Your task to perform on an android device: Go to ESPN.com Image 0: 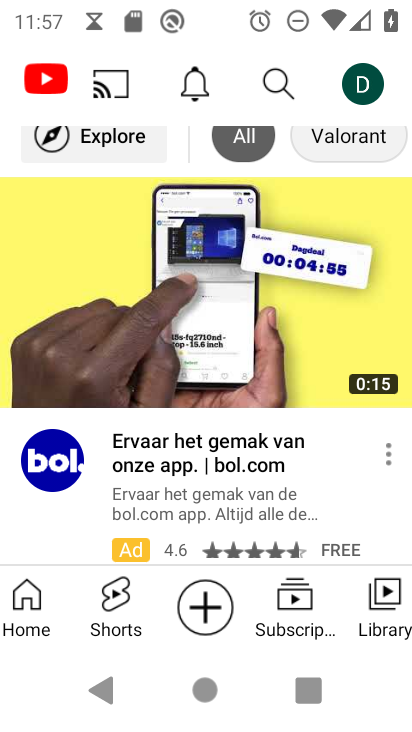
Step 0: press home button
Your task to perform on an android device: Go to ESPN.com Image 1: 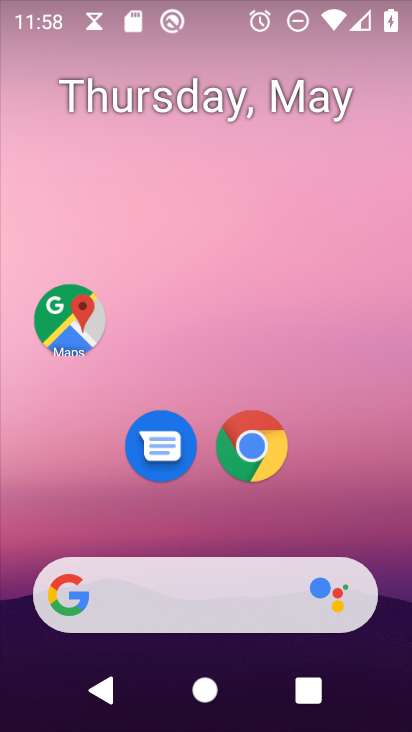
Step 1: drag from (275, 627) to (238, 302)
Your task to perform on an android device: Go to ESPN.com Image 2: 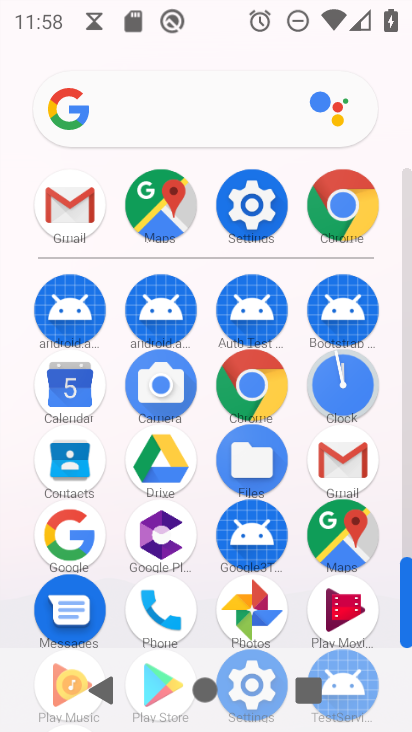
Step 2: click (334, 221)
Your task to perform on an android device: Go to ESPN.com Image 3: 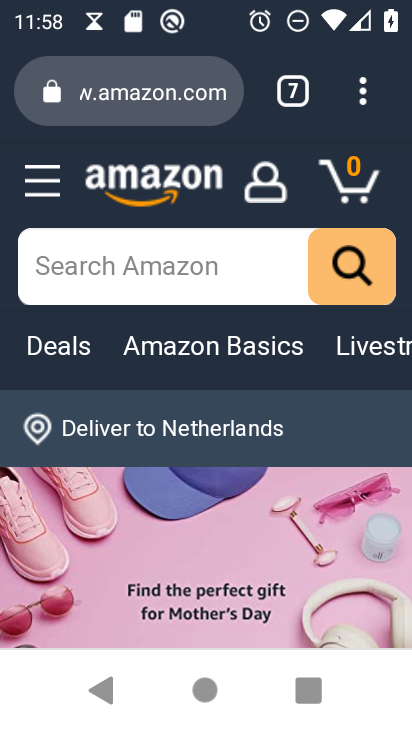
Step 3: click (356, 95)
Your task to perform on an android device: Go to ESPN.com Image 4: 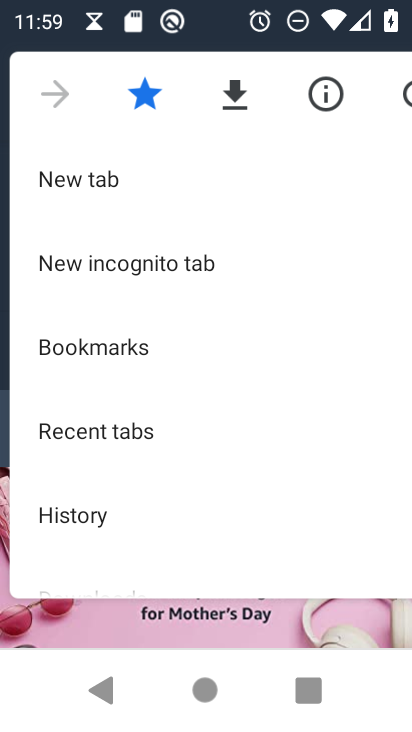
Step 4: click (148, 178)
Your task to perform on an android device: Go to ESPN.com Image 5: 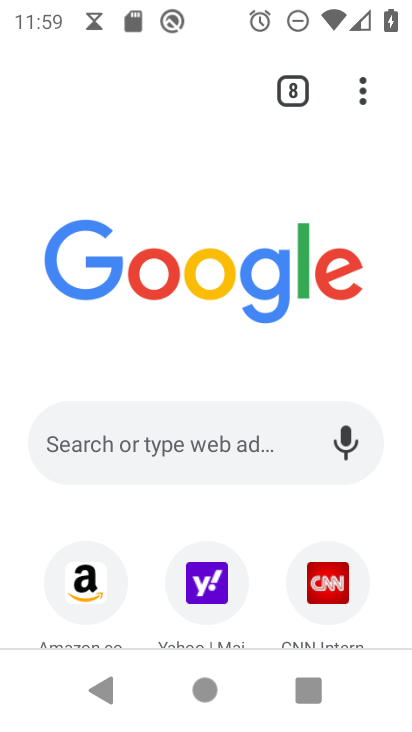
Step 5: drag from (117, 521) to (110, 288)
Your task to perform on an android device: Go to ESPN.com Image 6: 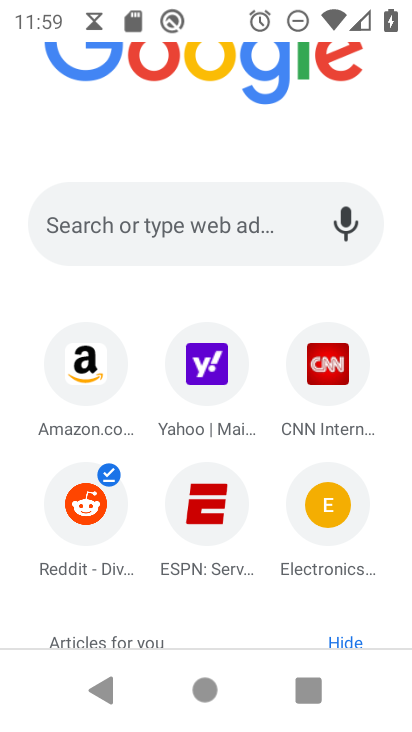
Step 6: click (211, 529)
Your task to perform on an android device: Go to ESPN.com Image 7: 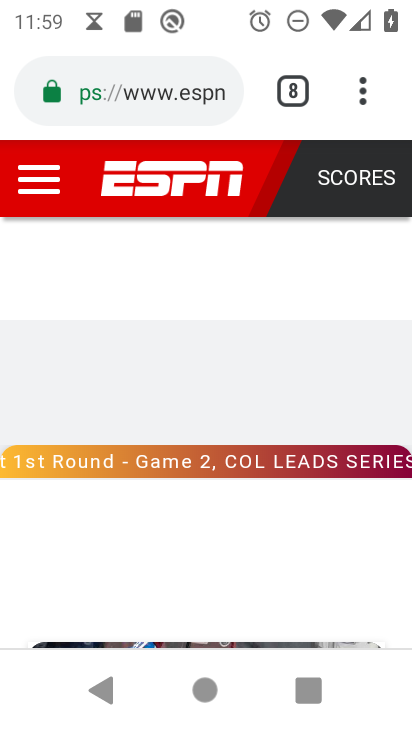
Step 7: task complete